Your task to perform on an android device: Open the stopwatch Image 0: 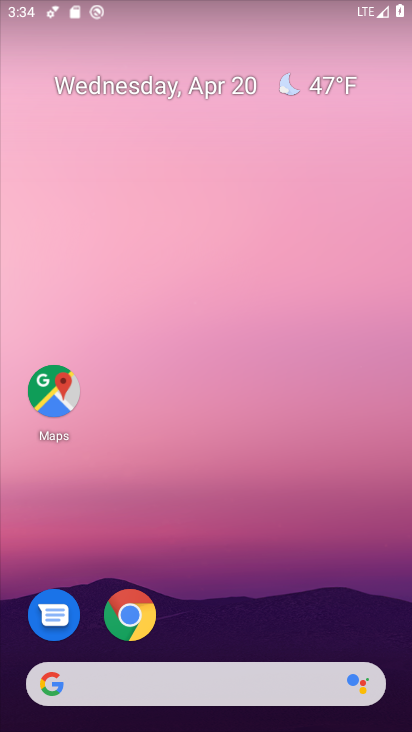
Step 0: drag from (231, 510) to (231, 245)
Your task to perform on an android device: Open the stopwatch Image 1: 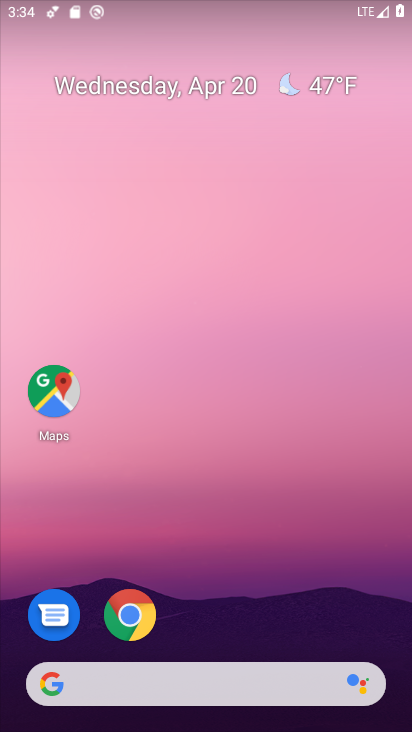
Step 1: drag from (223, 641) to (223, 135)
Your task to perform on an android device: Open the stopwatch Image 2: 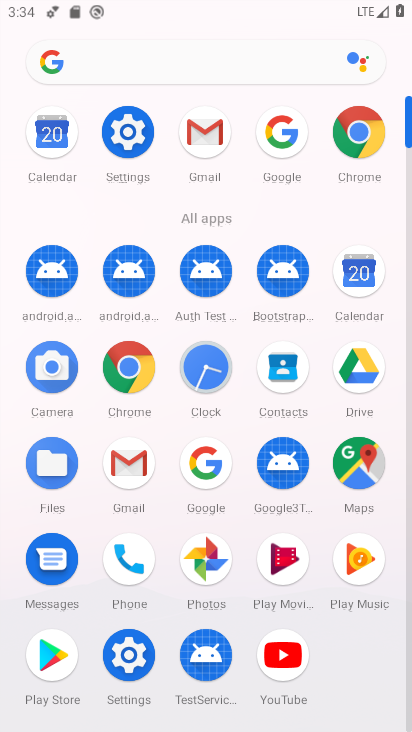
Step 2: click (212, 370)
Your task to perform on an android device: Open the stopwatch Image 3: 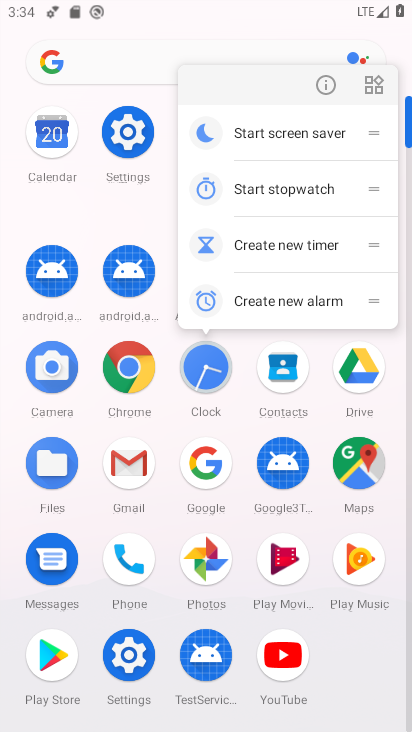
Step 3: click (215, 364)
Your task to perform on an android device: Open the stopwatch Image 4: 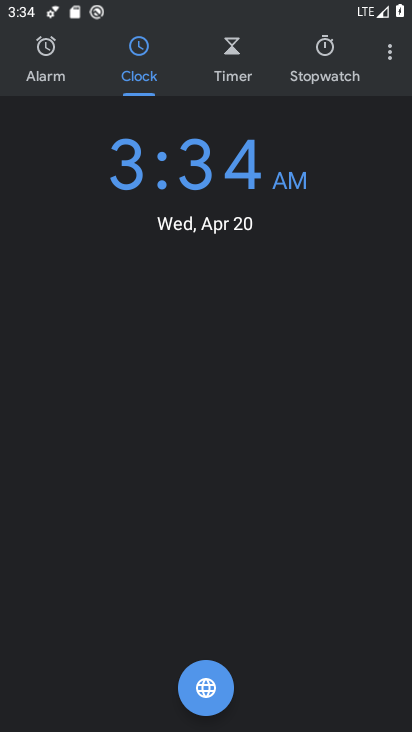
Step 4: click (328, 59)
Your task to perform on an android device: Open the stopwatch Image 5: 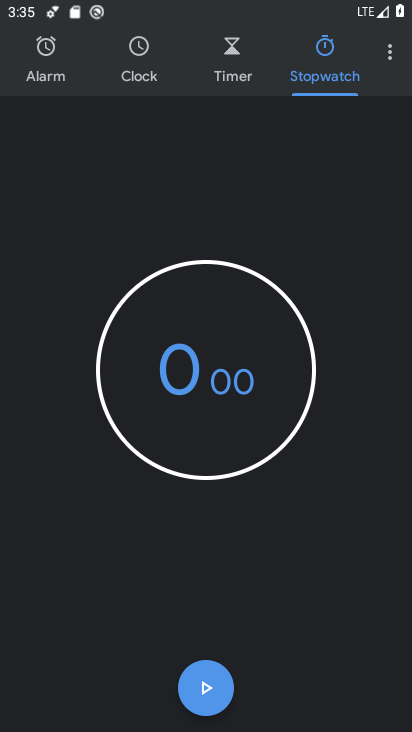
Step 5: task complete